Your task to perform on an android device: stop showing notifications on the lock screen Image 0: 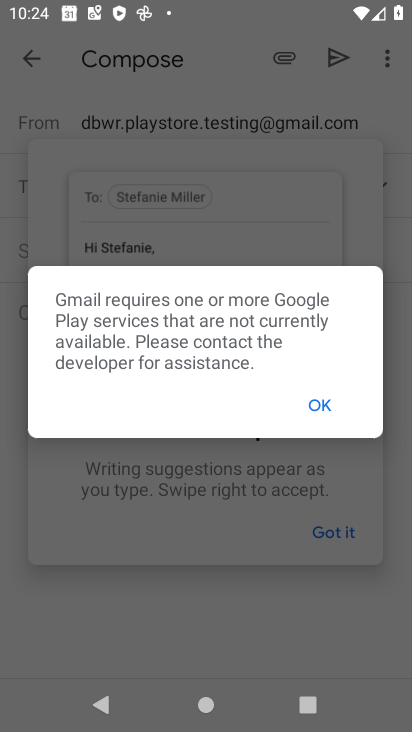
Step 0: press home button
Your task to perform on an android device: stop showing notifications on the lock screen Image 1: 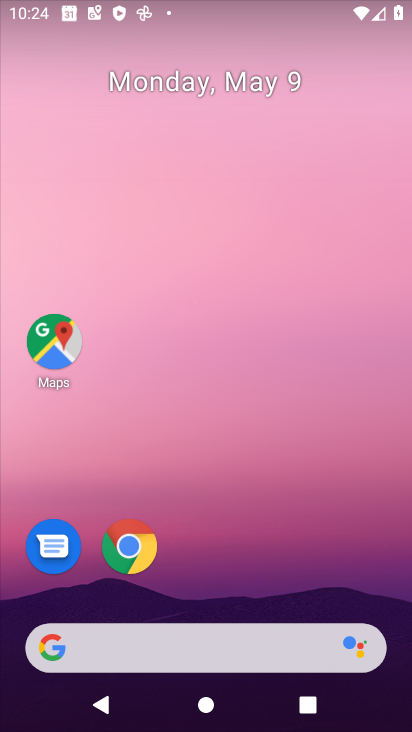
Step 1: drag from (246, 709) to (259, 43)
Your task to perform on an android device: stop showing notifications on the lock screen Image 2: 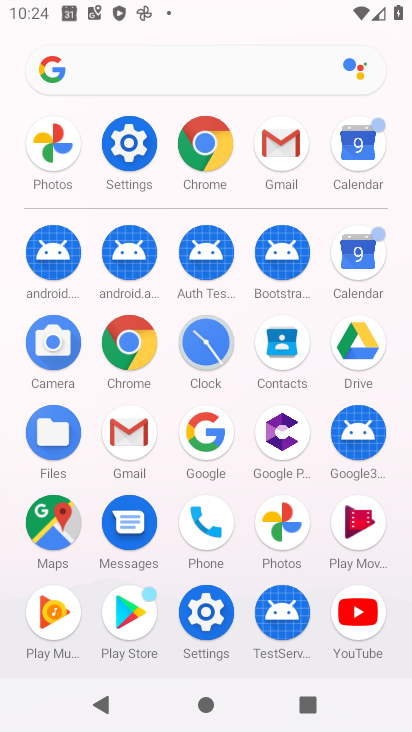
Step 2: click (114, 162)
Your task to perform on an android device: stop showing notifications on the lock screen Image 3: 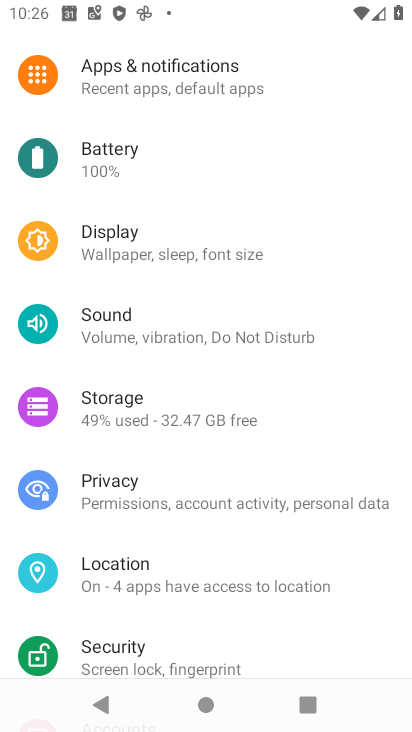
Step 3: drag from (210, 159) to (315, 687)
Your task to perform on an android device: stop showing notifications on the lock screen Image 4: 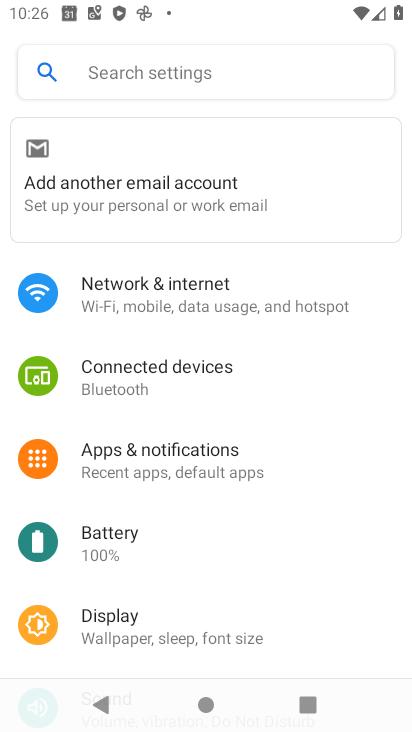
Step 4: click (189, 457)
Your task to perform on an android device: stop showing notifications on the lock screen Image 5: 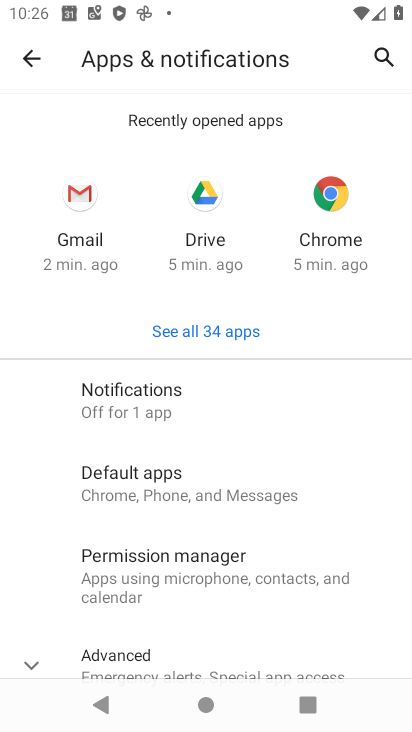
Step 5: click (214, 388)
Your task to perform on an android device: stop showing notifications on the lock screen Image 6: 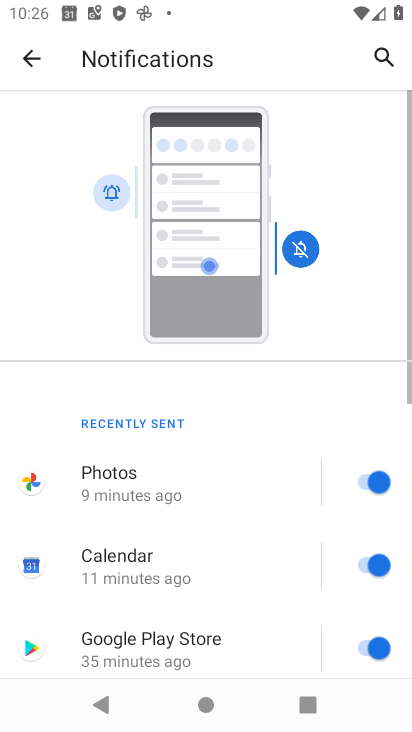
Step 6: drag from (277, 626) to (346, 12)
Your task to perform on an android device: stop showing notifications on the lock screen Image 7: 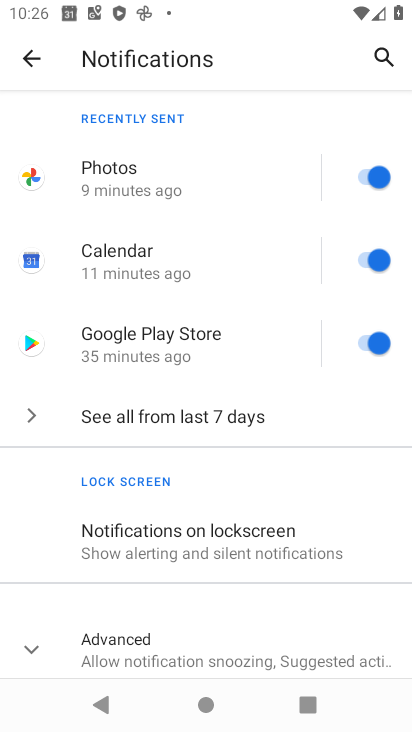
Step 7: click (253, 548)
Your task to perform on an android device: stop showing notifications on the lock screen Image 8: 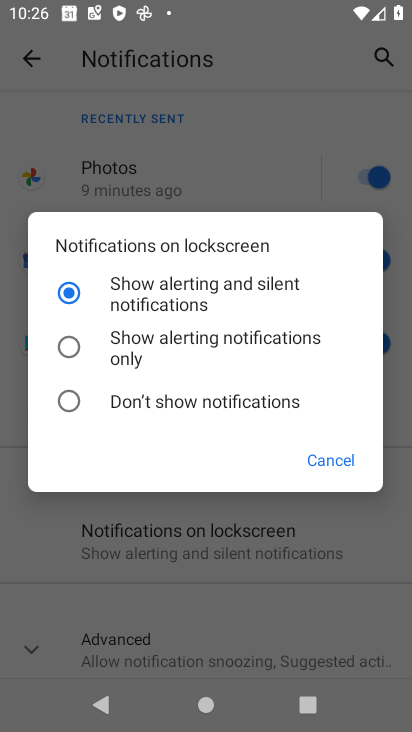
Step 8: click (201, 395)
Your task to perform on an android device: stop showing notifications on the lock screen Image 9: 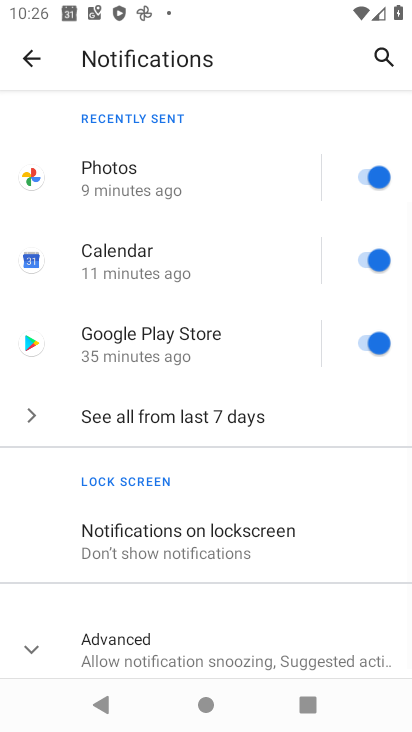
Step 9: click (254, 553)
Your task to perform on an android device: stop showing notifications on the lock screen Image 10: 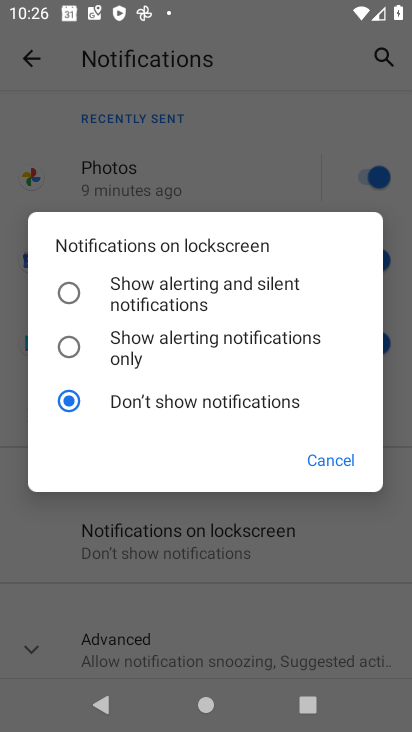
Step 10: task complete